Your task to perform on an android device: stop showing notifications on the lock screen Image 0: 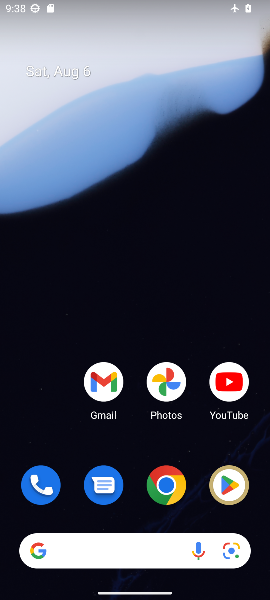
Step 0: drag from (197, 448) to (190, 29)
Your task to perform on an android device: stop showing notifications on the lock screen Image 1: 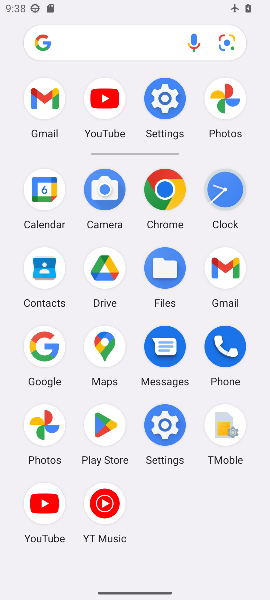
Step 1: click (166, 74)
Your task to perform on an android device: stop showing notifications on the lock screen Image 2: 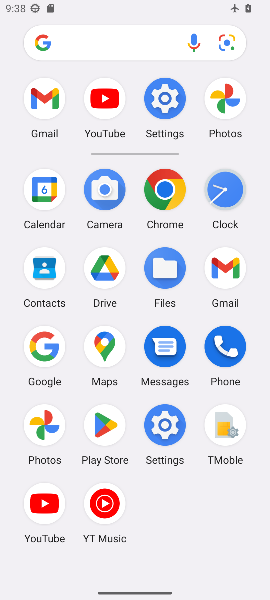
Step 2: click (160, 89)
Your task to perform on an android device: stop showing notifications on the lock screen Image 3: 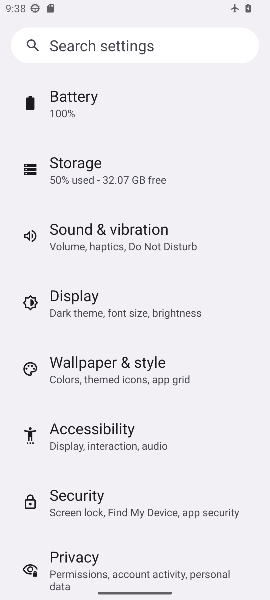
Step 3: drag from (144, 130) to (128, 482)
Your task to perform on an android device: stop showing notifications on the lock screen Image 4: 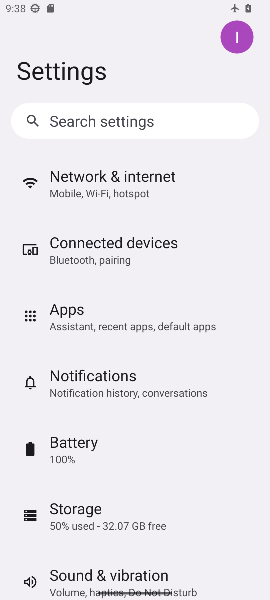
Step 4: click (91, 380)
Your task to perform on an android device: stop showing notifications on the lock screen Image 5: 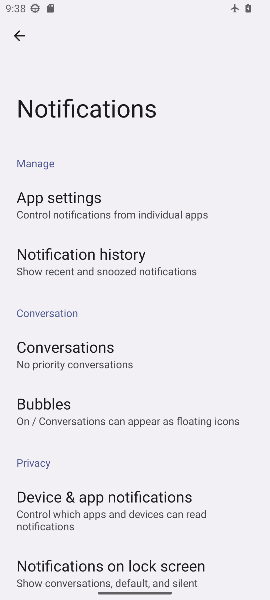
Step 5: drag from (145, 458) to (180, 188)
Your task to perform on an android device: stop showing notifications on the lock screen Image 6: 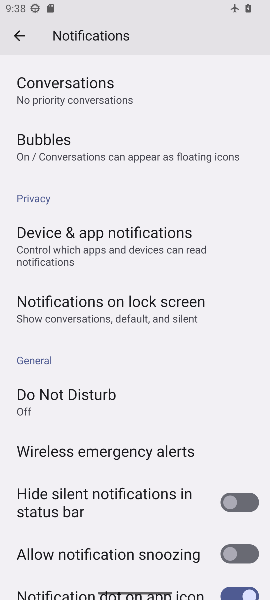
Step 6: click (121, 321)
Your task to perform on an android device: stop showing notifications on the lock screen Image 7: 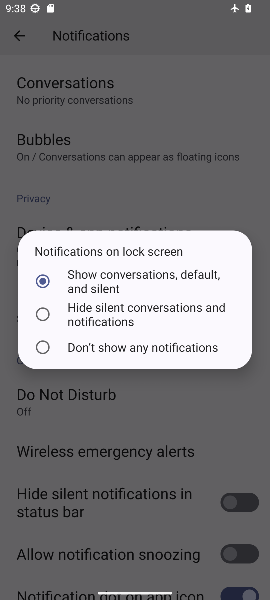
Step 7: click (131, 349)
Your task to perform on an android device: stop showing notifications on the lock screen Image 8: 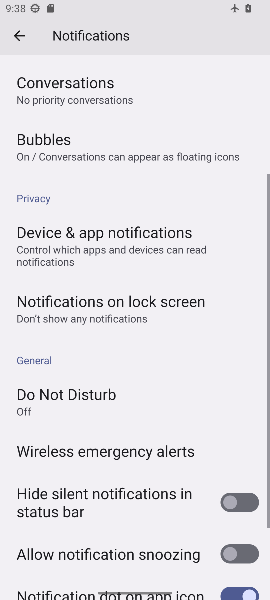
Step 8: task complete